Your task to perform on an android device: turn on showing notifications on the lock screen Image 0: 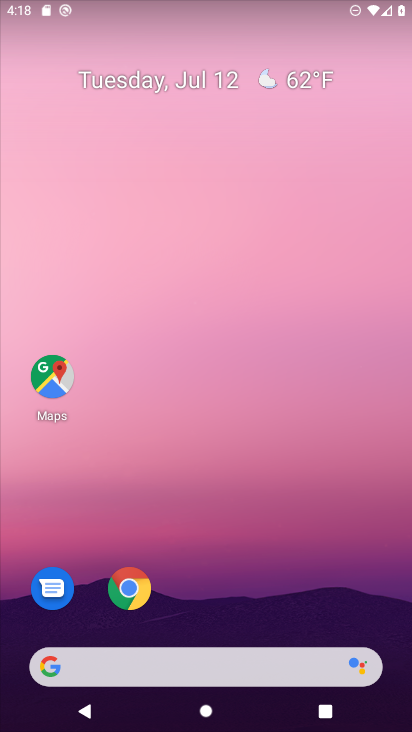
Step 0: drag from (209, 539) to (238, 254)
Your task to perform on an android device: turn on showing notifications on the lock screen Image 1: 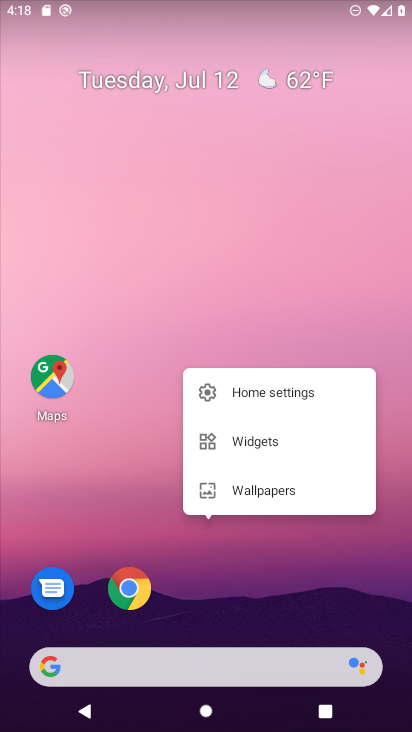
Step 1: click (253, 291)
Your task to perform on an android device: turn on showing notifications on the lock screen Image 2: 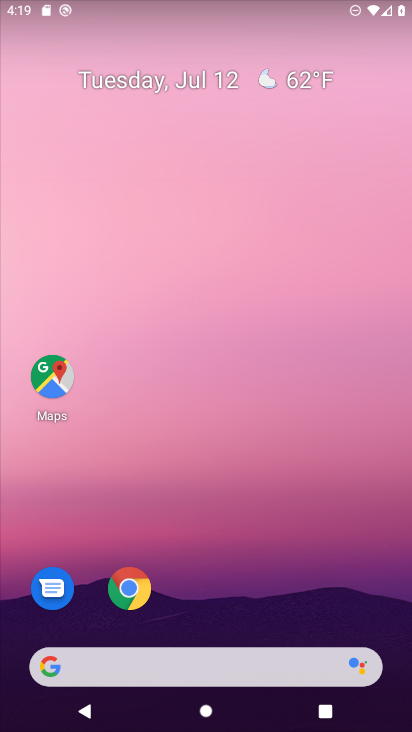
Step 2: drag from (260, 597) to (341, 23)
Your task to perform on an android device: turn on showing notifications on the lock screen Image 3: 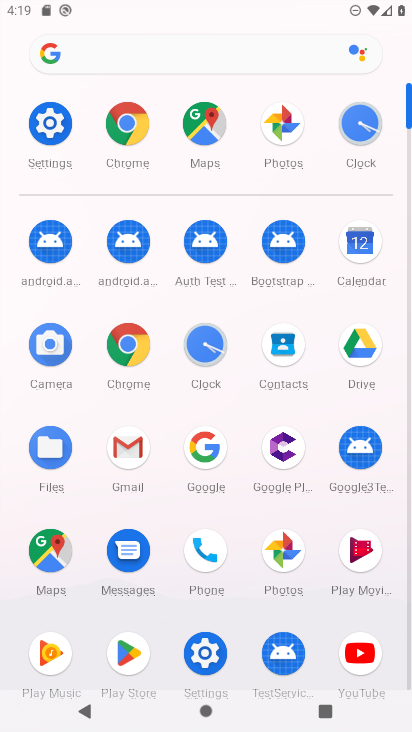
Step 3: click (58, 123)
Your task to perform on an android device: turn on showing notifications on the lock screen Image 4: 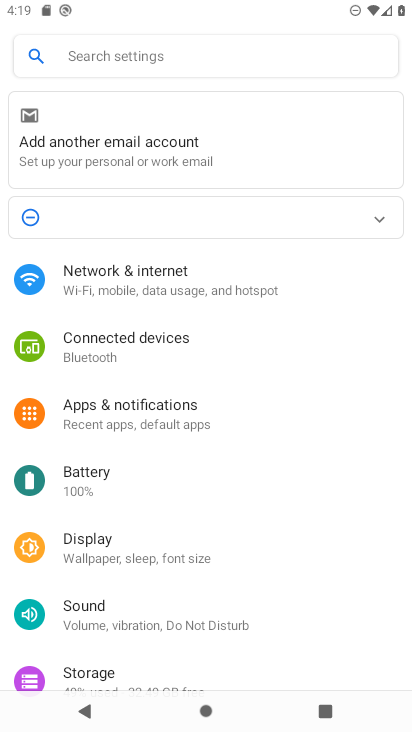
Step 4: click (164, 419)
Your task to perform on an android device: turn on showing notifications on the lock screen Image 5: 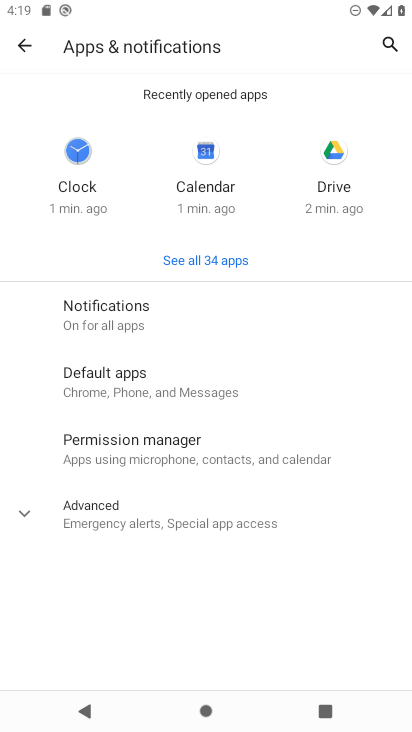
Step 5: click (146, 322)
Your task to perform on an android device: turn on showing notifications on the lock screen Image 6: 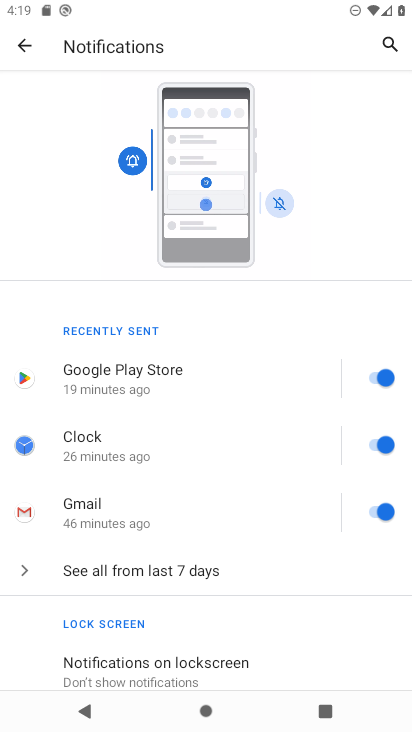
Step 6: drag from (206, 604) to (246, 415)
Your task to perform on an android device: turn on showing notifications on the lock screen Image 7: 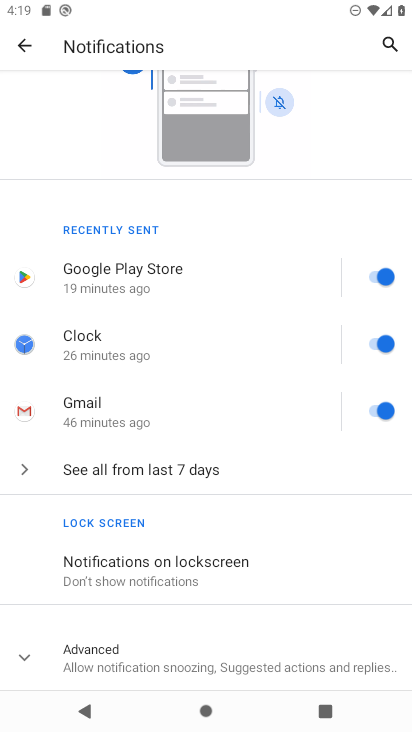
Step 7: drag from (182, 589) to (211, 373)
Your task to perform on an android device: turn on showing notifications on the lock screen Image 8: 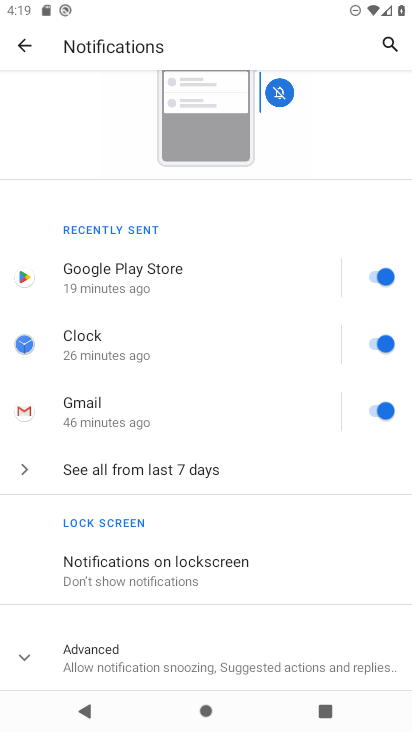
Step 8: click (135, 575)
Your task to perform on an android device: turn on showing notifications on the lock screen Image 9: 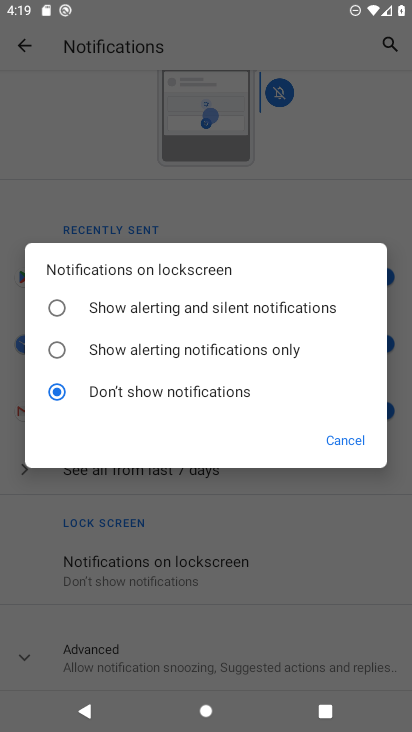
Step 9: click (136, 304)
Your task to perform on an android device: turn on showing notifications on the lock screen Image 10: 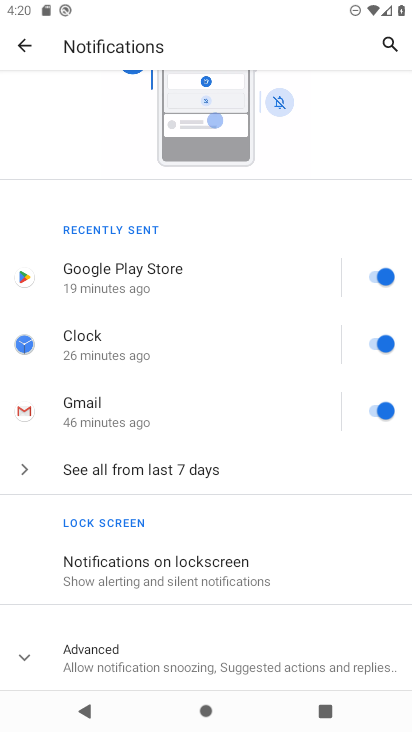
Step 10: task complete